Your task to perform on an android device: What is the recent news? Image 0: 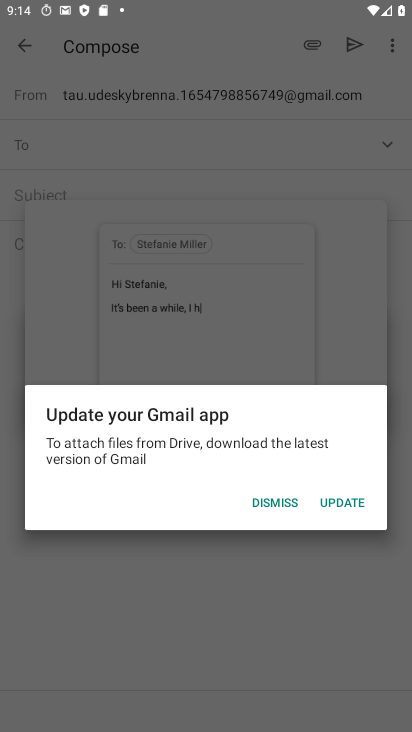
Step 0: press home button
Your task to perform on an android device: What is the recent news? Image 1: 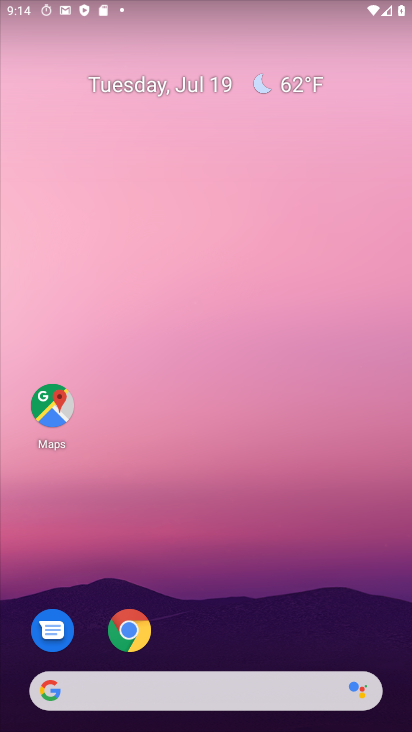
Step 1: click (126, 700)
Your task to perform on an android device: What is the recent news? Image 2: 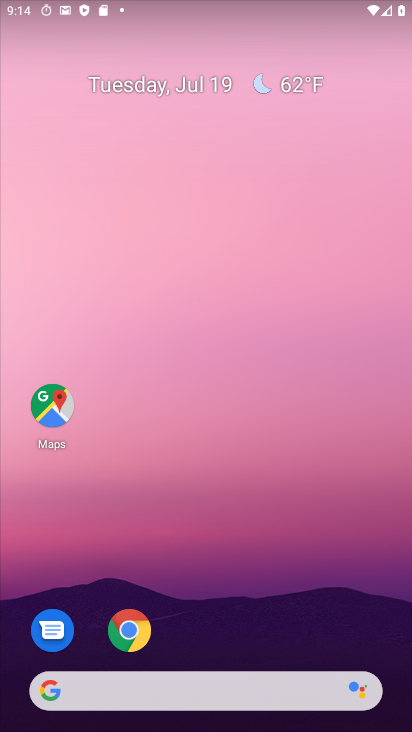
Step 2: click (126, 688)
Your task to perform on an android device: What is the recent news? Image 3: 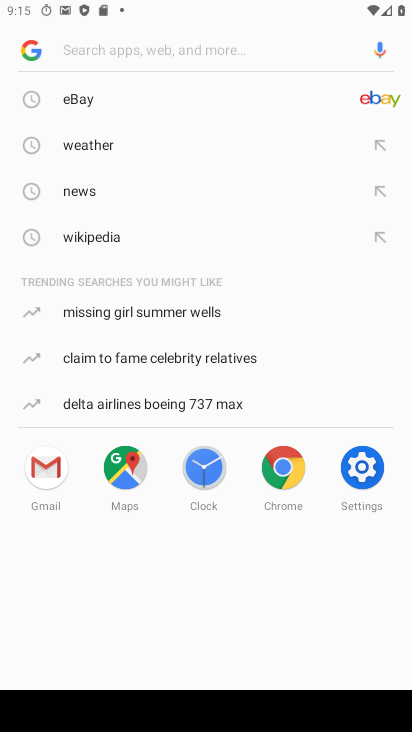
Step 3: type "What is the recent news?"
Your task to perform on an android device: What is the recent news? Image 4: 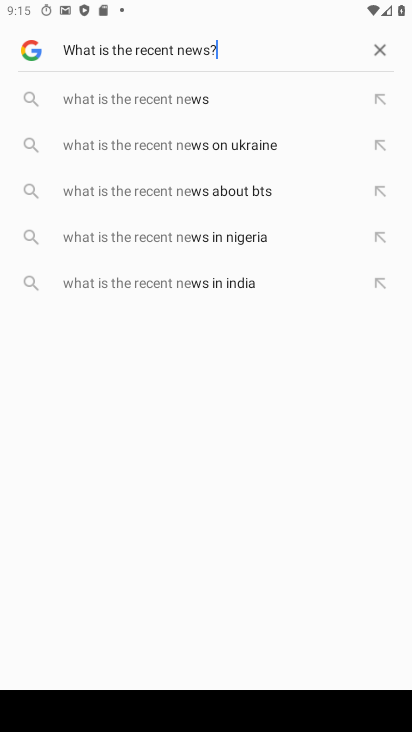
Step 4: type ""
Your task to perform on an android device: What is the recent news? Image 5: 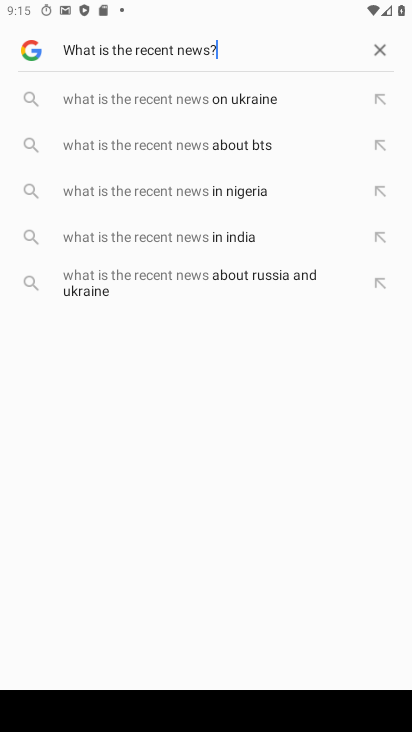
Step 5: type ""
Your task to perform on an android device: What is the recent news? Image 6: 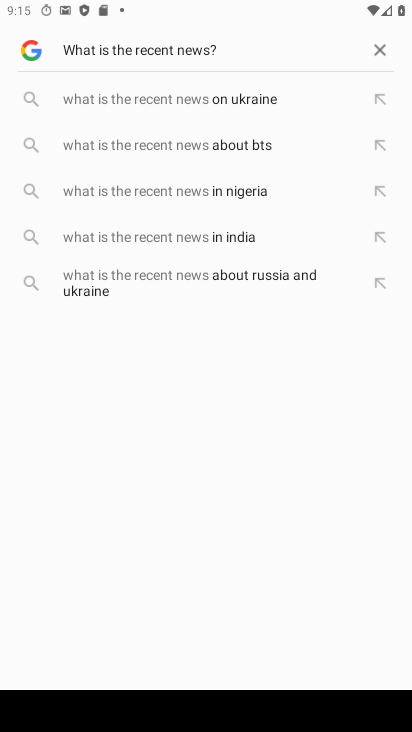
Step 6: type ""
Your task to perform on an android device: What is the recent news? Image 7: 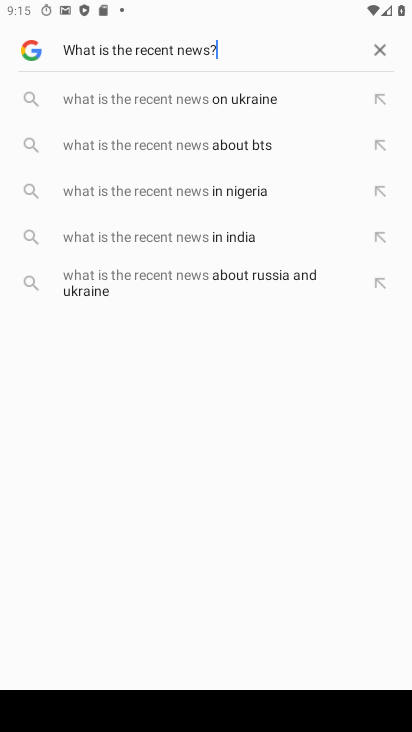
Step 7: type ""
Your task to perform on an android device: What is the recent news? Image 8: 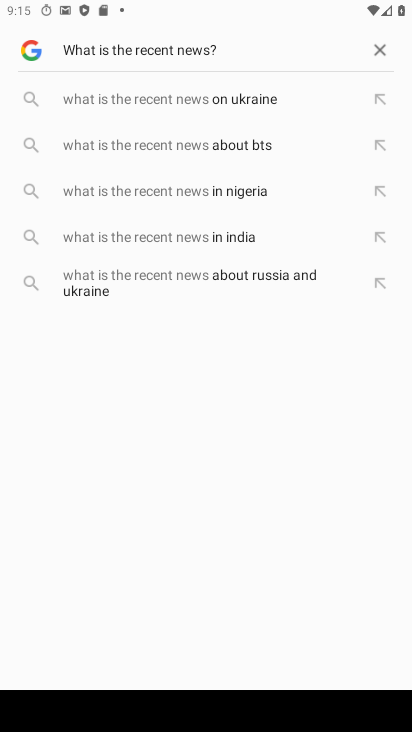
Step 8: task complete